Your task to perform on an android device: turn off javascript in the chrome app Image 0: 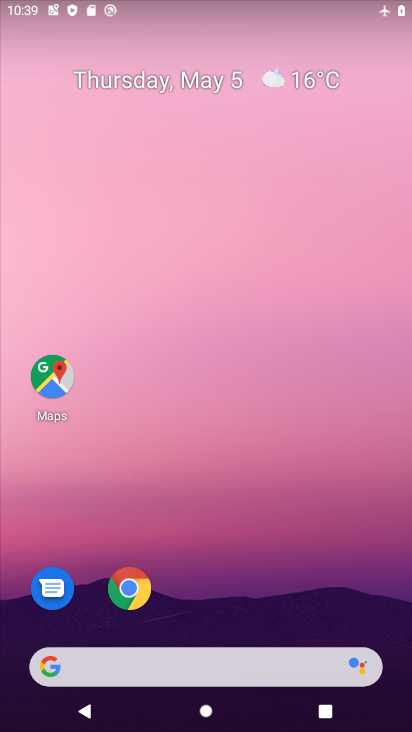
Step 0: drag from (254, 581) to (306, 86)
Your task to perform on an android device: turn off javascript in the chrome app Image 1: 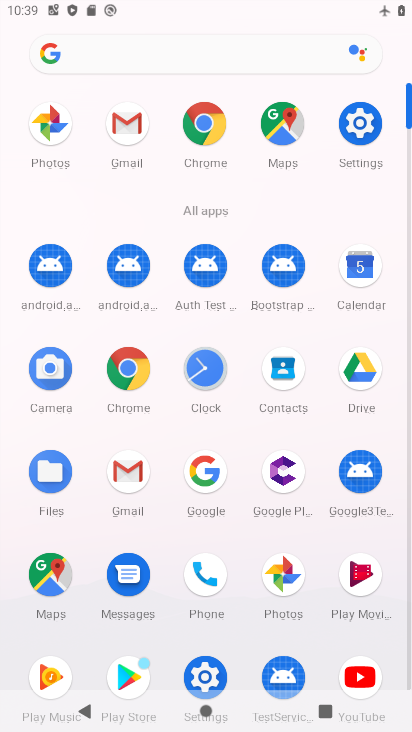
Step 1: click (207, 136)
Your task to perform on an android device: turn off javascript in the chrome app Image 2: 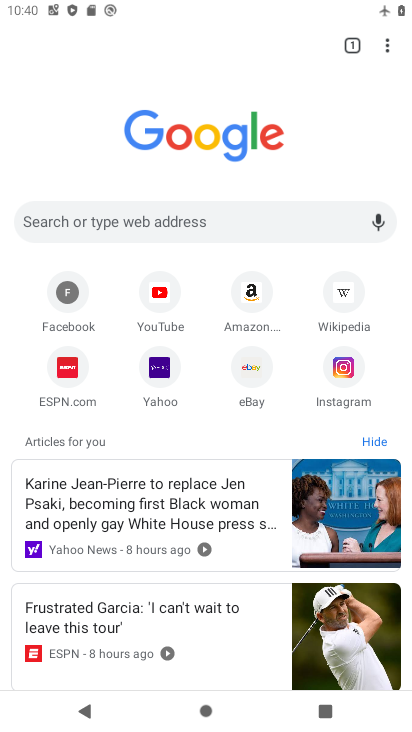
Step 2: click (393, 46)
Your task to perform on an android device: turn off javascript in the chrome app Image 3: 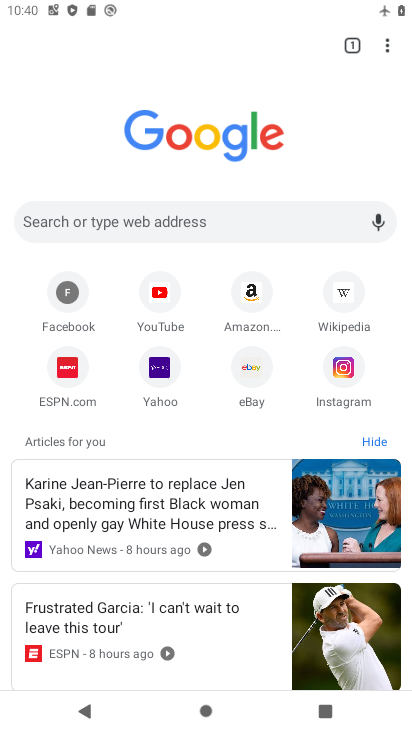
Step 3: click (385, 64)
Your task to perform on an android device: turn off javascript in the chrome app Image 4: 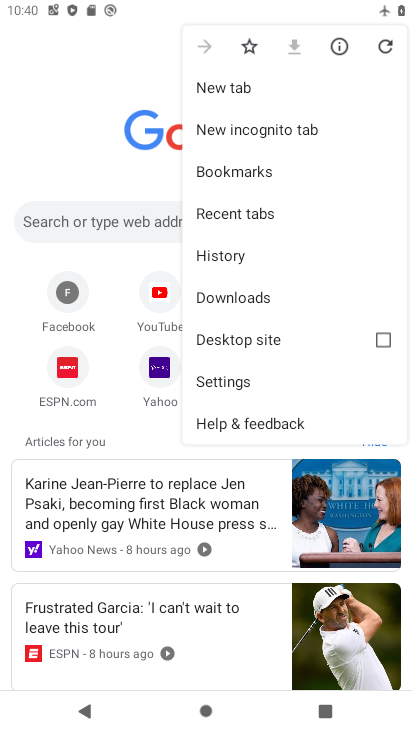
Step 4: click (286, 377)
Your task to perform on an android device: turn off javascript in the chrome app Image 5: 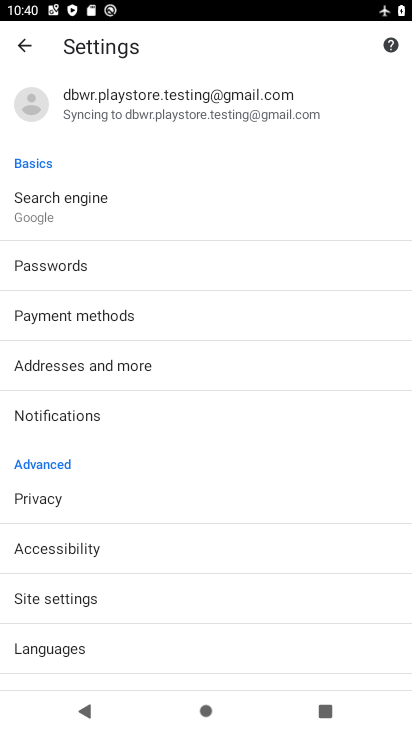
Step 5: drag from (223, 419) to (217, 291)
Your task to perform on an android device: turn off javascript in the chrome app Image 6: 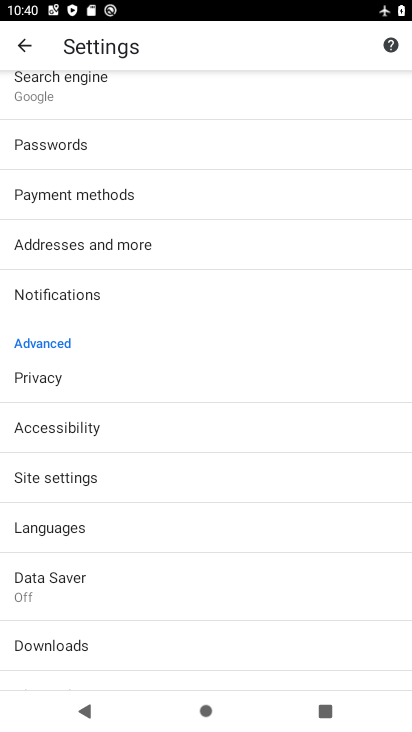
Step 6: click (198, 471)
Your task to perform on an android device: turn off javascript in the chrome app Image 7: 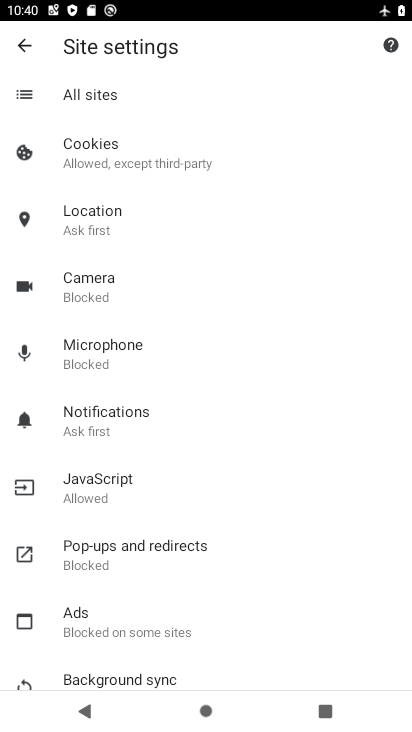
Step 7: click (149, 493)
Your task to perform on an android device: turn off javascript in the chrome app Image 8: 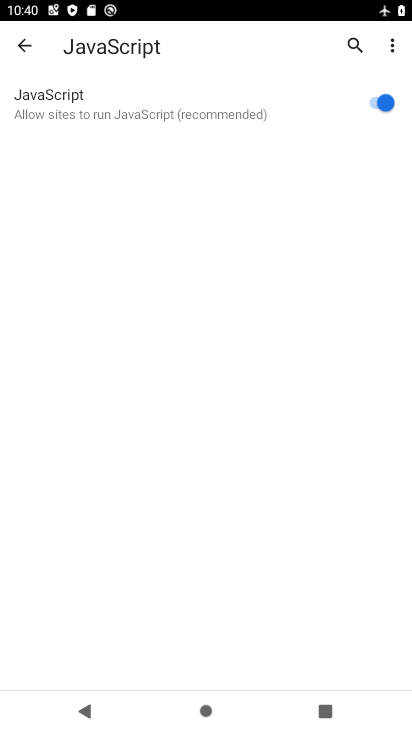
Step 8: click (379, 109)
Your task to perform on an android device: turn off javascript in the chrome app Image 9: 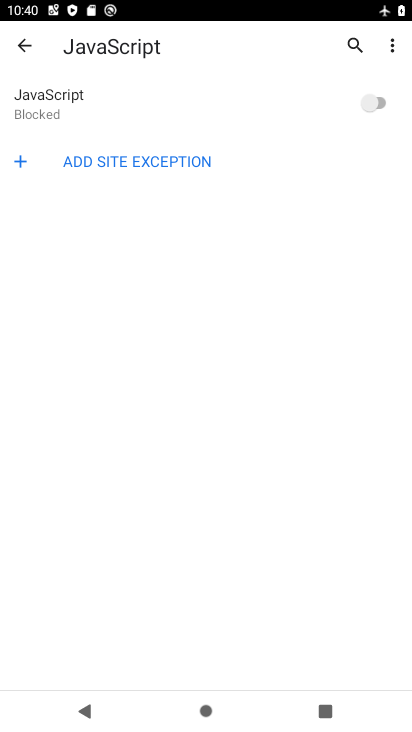
Step 9: task complete